Your task to perform on an android device: refresh tabs in the chrome app Image 0: 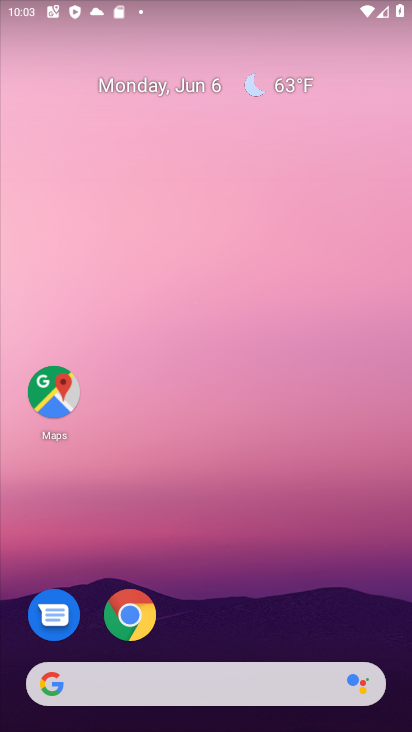
Step 0: click (139, 617)
Your task to perform on an android device: refresh tabs in the chrome app Image 1: 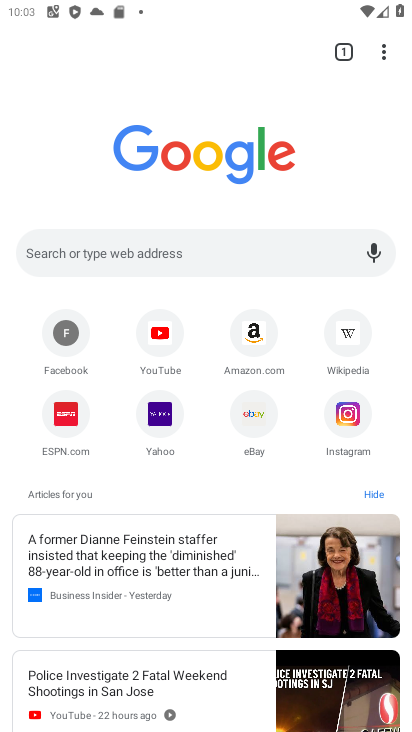
Step 1: click (389, 54)
Your task to perform on an android device: refresh tabs in the chrome app Image 2: 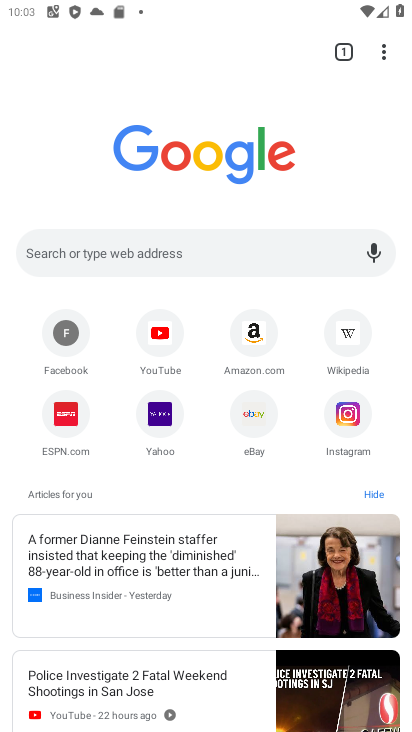
Step 2: task complete